Your task to perform on an android device: Check the news Image 0: 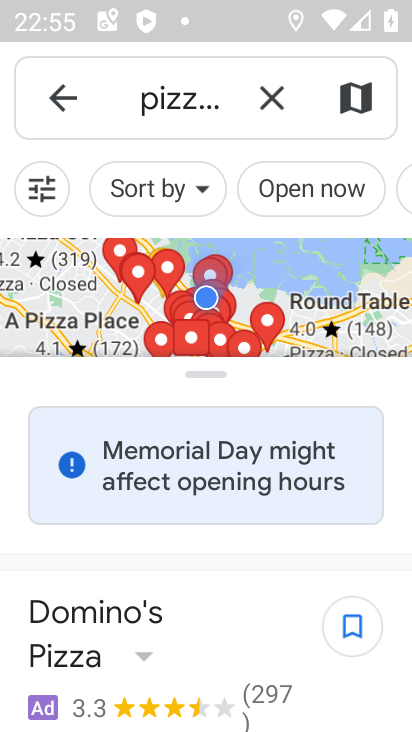
Step 0: press home button
Your task to perform on an android device: Check the news Image 1: 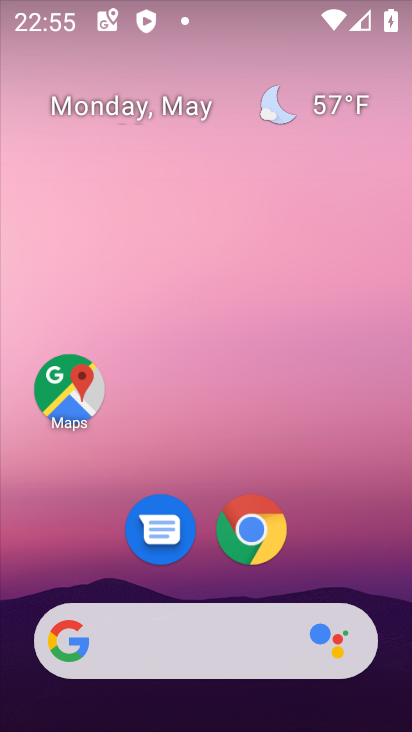
Step 1: drag from (2, 278) to (311, 262)
Your task to perform on an android device: Check the news Image 2: 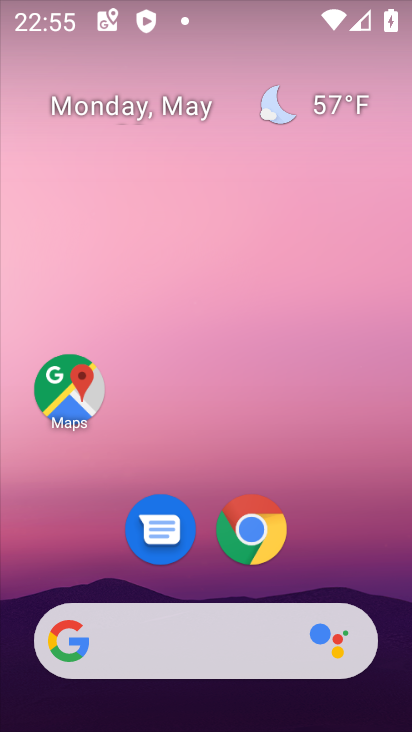
Step 2: drag from (3, 239) to (60, 233)
Your task to perform on an android device: Check the news Image 3: 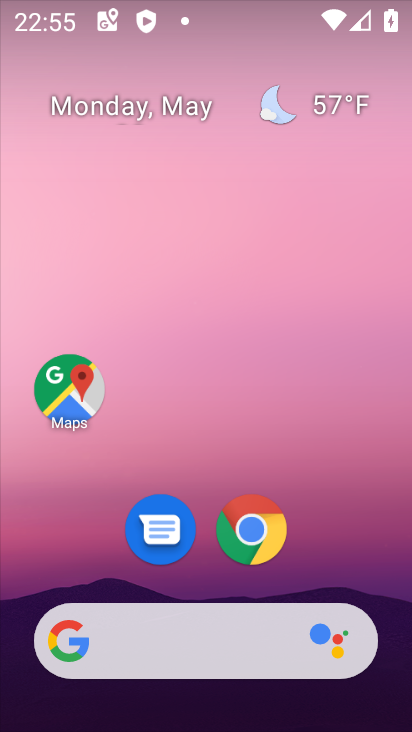
Step 3: click (407, 223)
Your task to perform on an android device: Check the news Image 4: 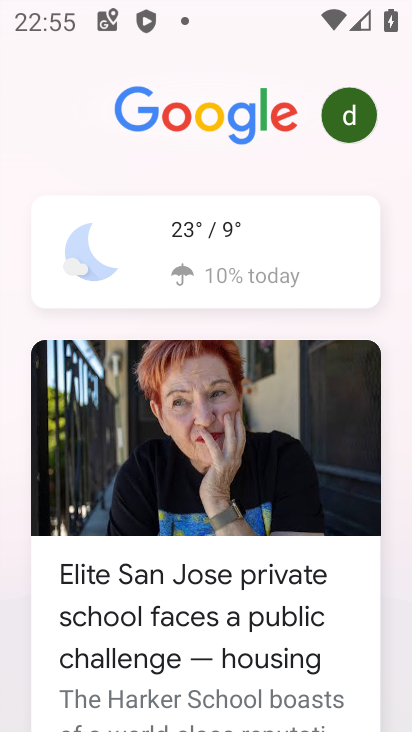
Step 4: task complete